Your task to perform on an android device: turn notification dots off Image 0: 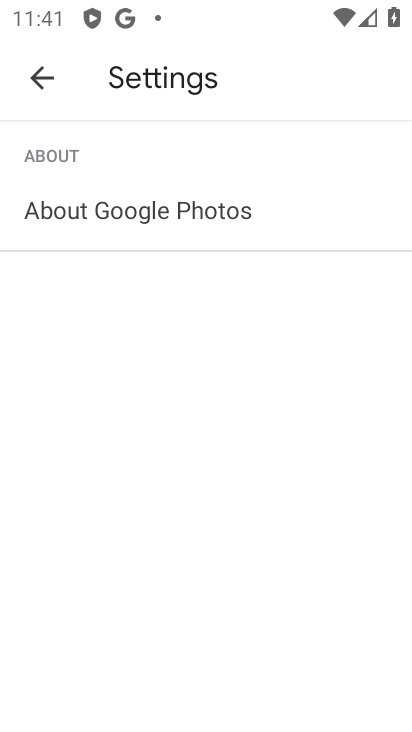
Step 0: press home button
Your task to perform on an android device: turn notification dots off Image 1: 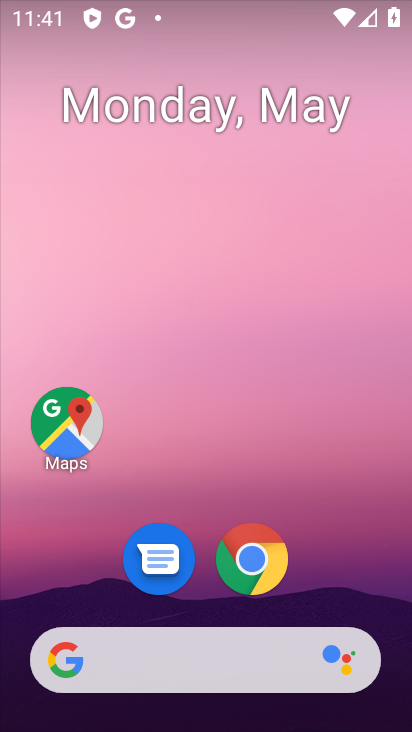
Step 1: drag from (392, 552) to (312, 27)
Your task to perform on an android device: turn notification dots off Image 2: 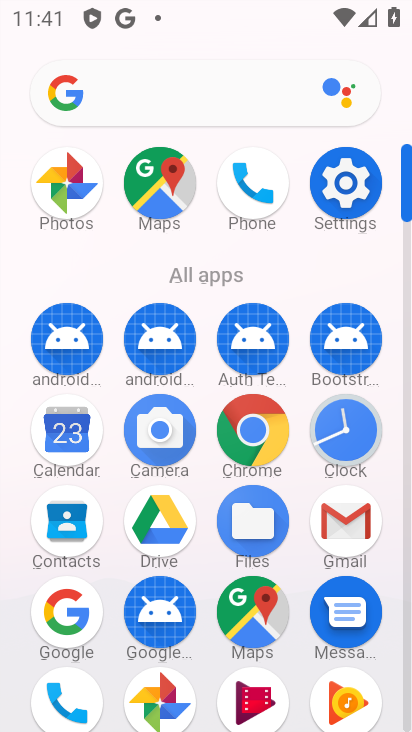
Step 2: click (331, 168)
Your task to perform on an android device: turn notification dots off Image 3: 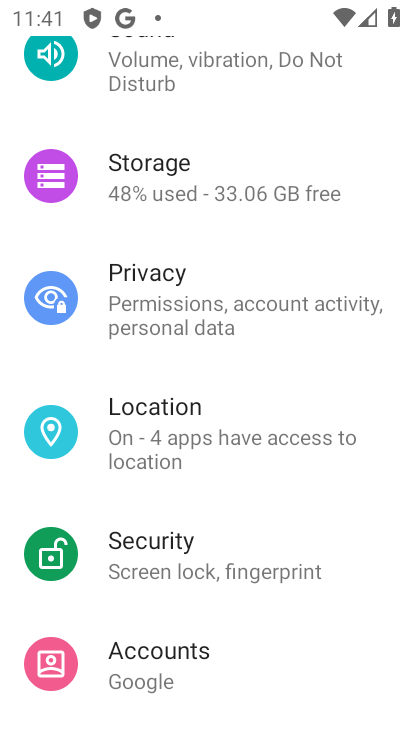
Step 3: drag from (190, 295) to (255, 473)
Your task to perform on an android device: turn notification dots off Image 4: 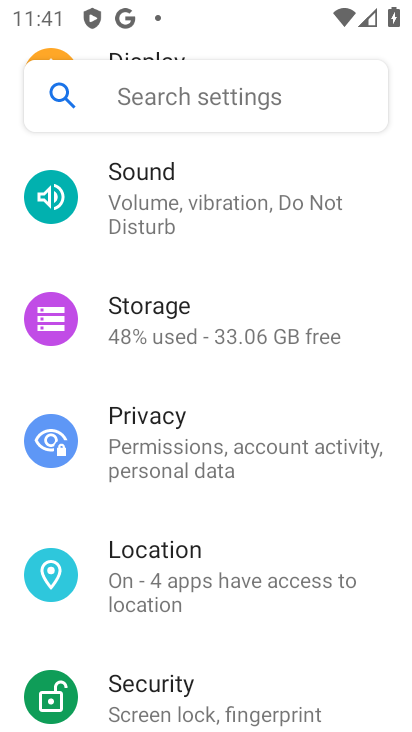
Step 4: drag from (245, 344) to (326, 729)
Your task to perform on an android device: turn notification dots off Image 5: 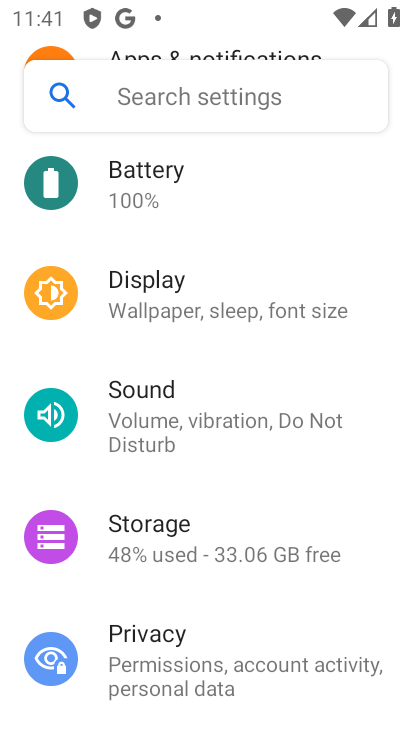
Step 5: drag from (233, 253) to (291, 675)
Your task to perform on an android device: turn notification dots off Image 6: 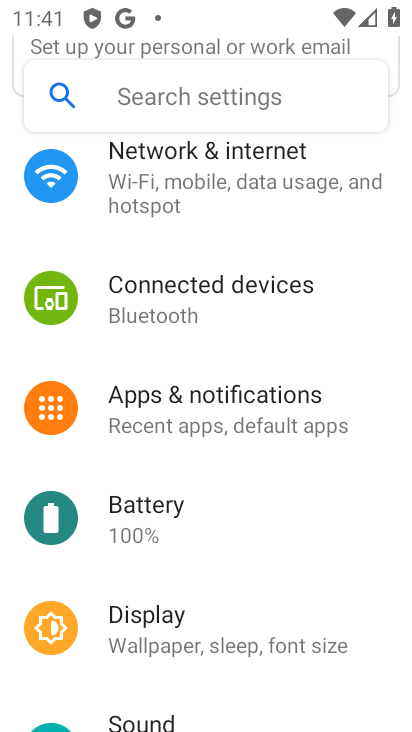
Step 6: click (265, 179)
Your task to perform on an android device: turn notification dots off Image 7: 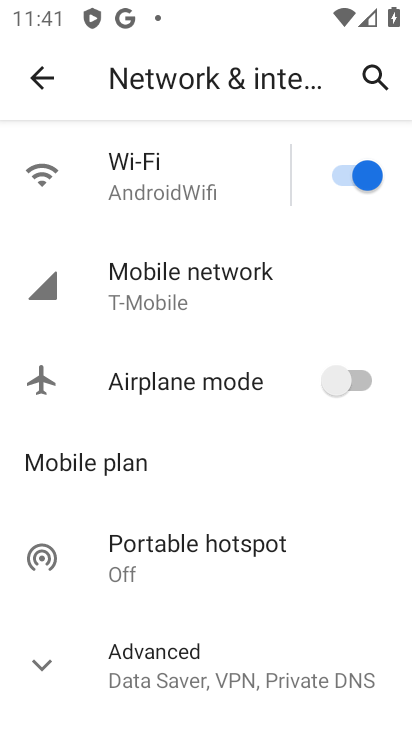
Step 7: click (44, 73)
Your task to perform on an android device: turn notification dots off Image 8: 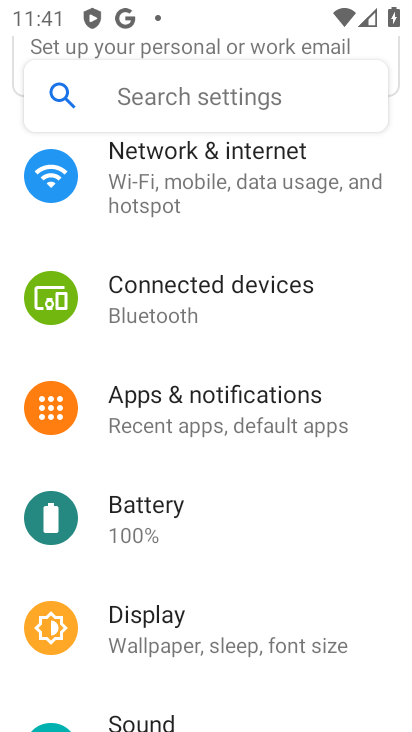
Step 8: click (240, 417)
Your task to perform on an android device: turn notification dots off Image 9: 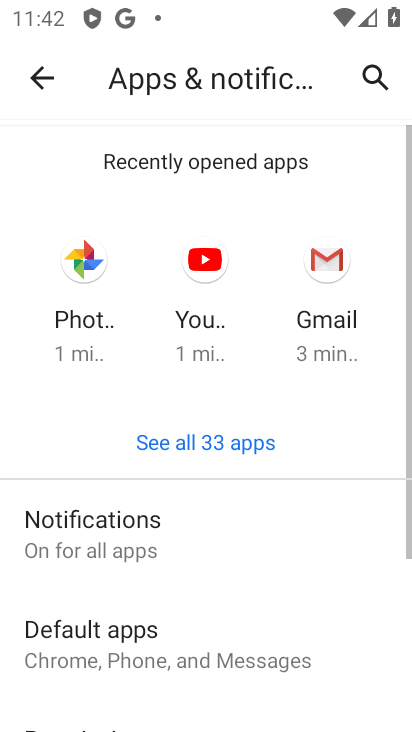
Step 9: click (261, 559)
Your task to perform on an android device: turn notification dots off Image 10: 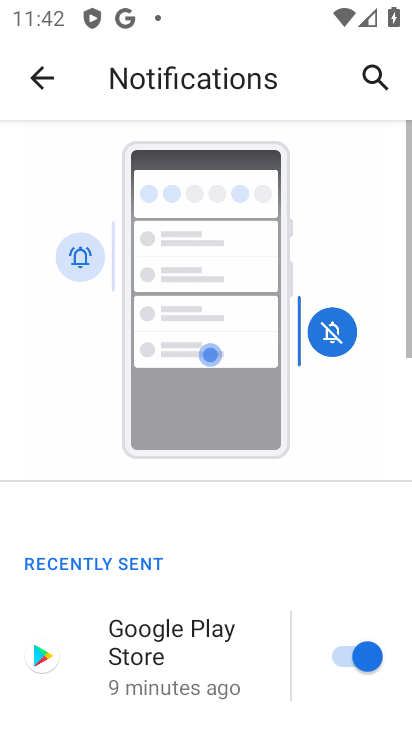
Step 10: drag from (288, 617) to (261, 117)
Your task to perform on an android device: turn notification dots off Image 11: 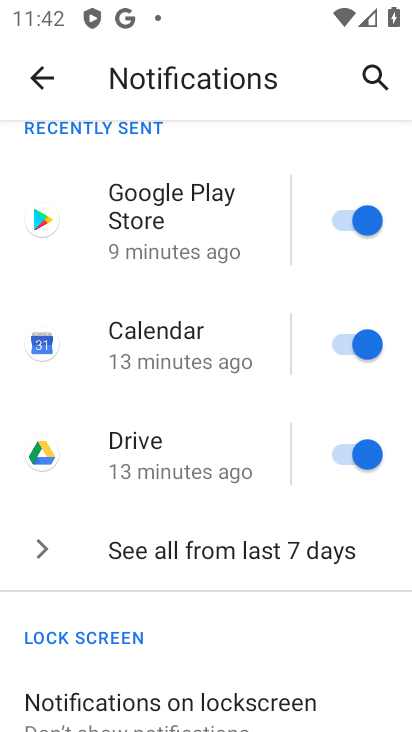
Step 11: drag from (181, 544) to (176, 231)
Your task to perform on an android device: turn notification dots off Image 12: 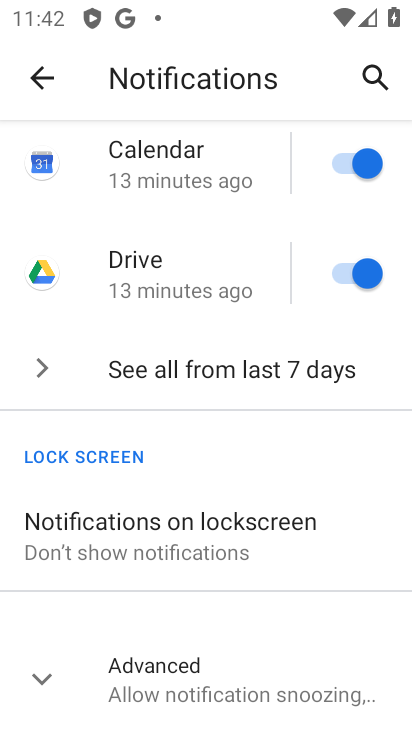
Step 12: click (207, 683)
Your task to perform on an android device: turn notification dots off Image 13: 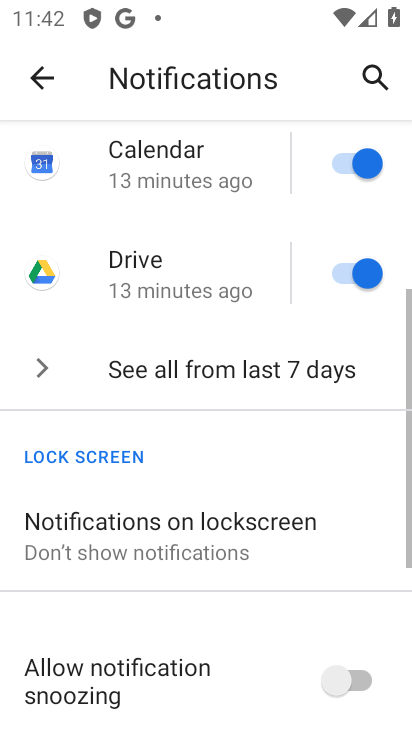
Step 13: drag from (295, 605) to (312, 111)
Your task to perform on an android device: turn notification dots off Image 14: 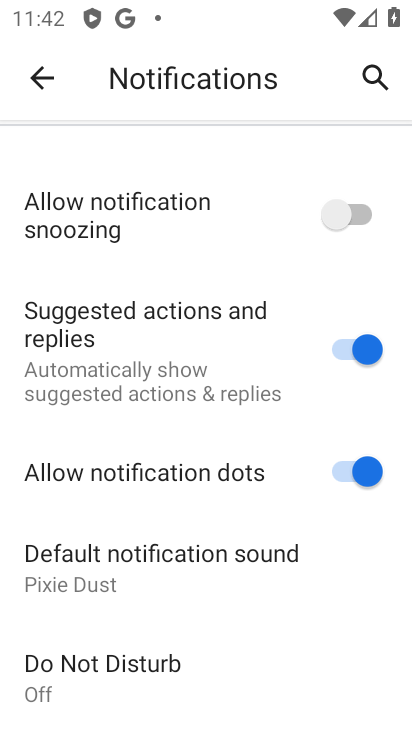
Step 14: click (365, 454)
Your task to perform on an android device: turn notification dots off Image 15: 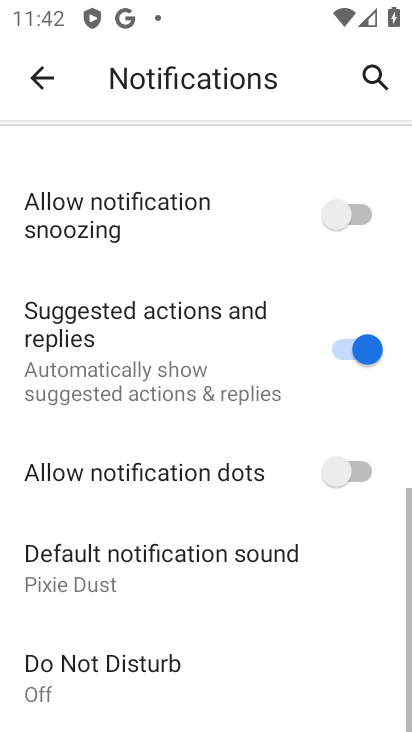
Step 15: task complete